Your task to perform on an android device: see sites visited before in the chrome app Image 0: 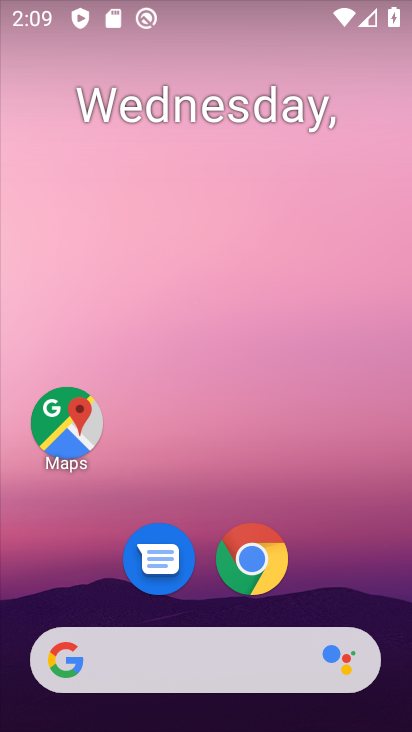
Step 0: drag from (359, 582) to (355, 143)
Your task to perform on an android device: see sites visited before in the chrome app Image 1: 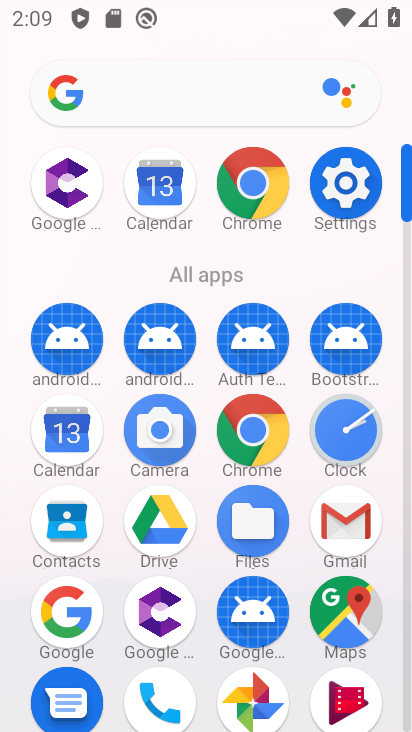
Step 1: click (252, 428)
Your task to perform on an android device: see sites visited before in the chrome app Image 2: 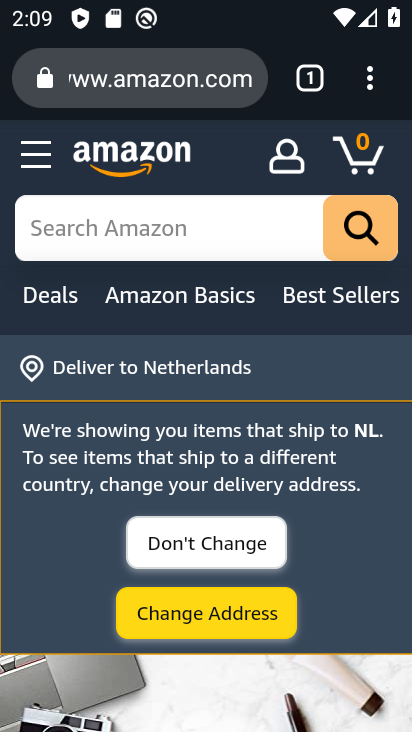
Step 2: click (372, 88)
Your task to perform on an android device: see sites visited before in the chrome app Image 3: 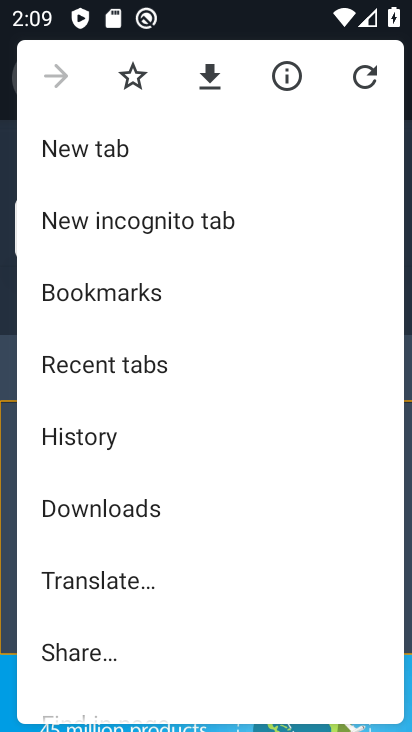
Step 3: drag from (328, 361) to (329, 265)
Your task to perform on an android device: see sites visited before in the chrome app Image 4: 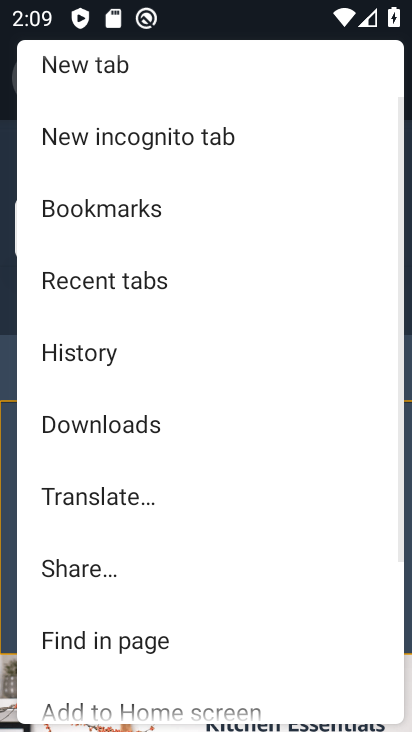
Step 4: drag from (306, 419) to (305, 289)
Your task to perform on an android device: see sites visited before in the chrome app Image 5: 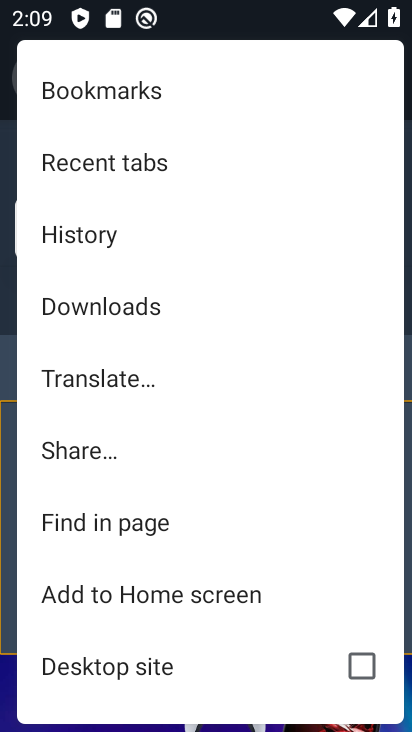
Step 5: drag from (278, 399) to (269, 278)
Your task to perform on an android device: see sites visited before in the chrome app Image 6: 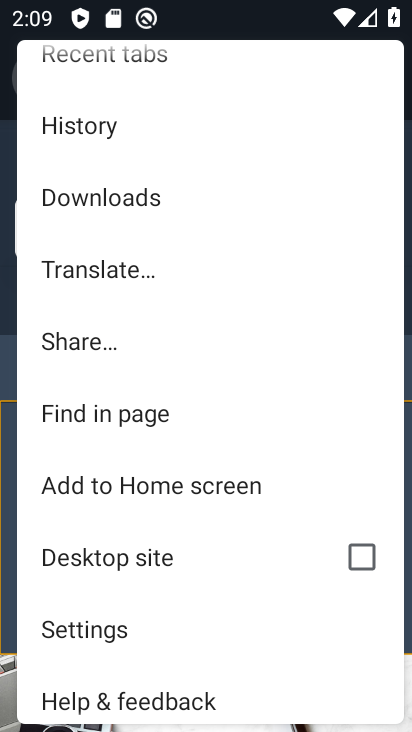
Step 6: drag from (268, 402) to (263, 281)
Your task to perform on an android device: see sites visited before in the chrome app Image 7: 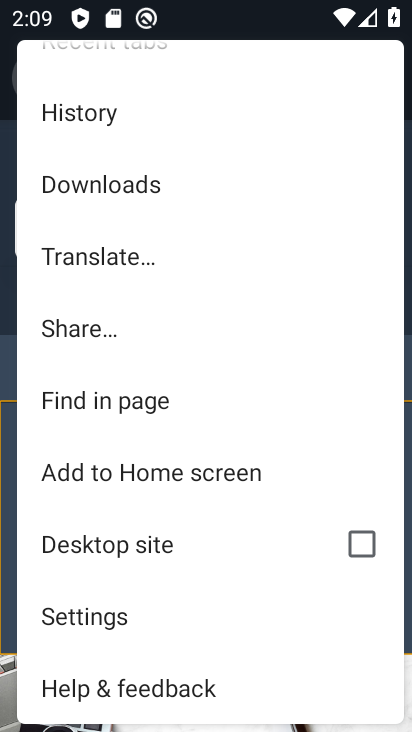
Step 7: drag from (213, 212) to (230, 424)
Your task to perform on an android device: see sites visited before in the chrome app Image 8: 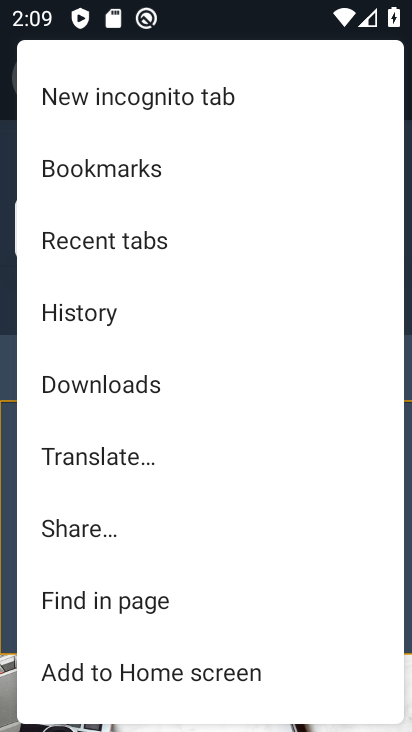
Step 8: drag from (249, 221) to (242, 420)
Your task to perform on an android device: see sites visited before in the chrome app Image 9: 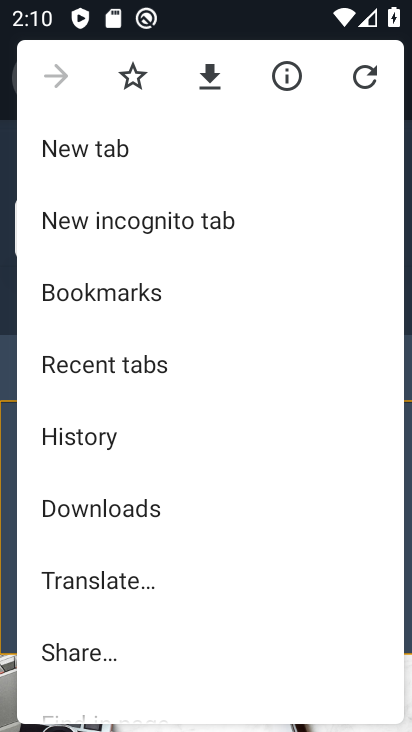
Step 9: click (125, 439)
Your task to perform on an android device: see sites visited before in the chrome app Image 10: 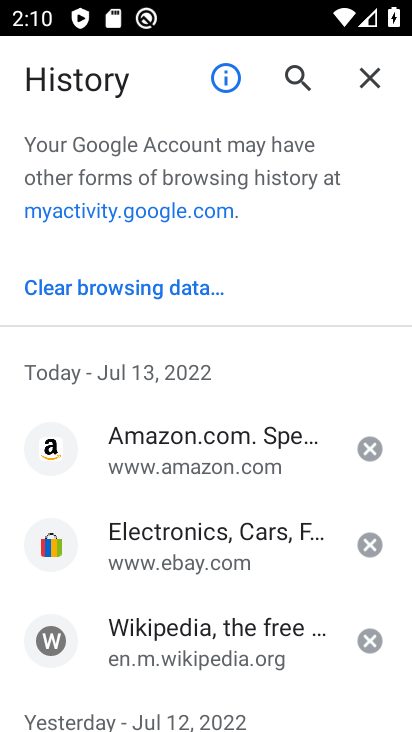
Step 10: task complete